Your task to perform on an android device: Search for pizza restaurants on Maps Image 0: 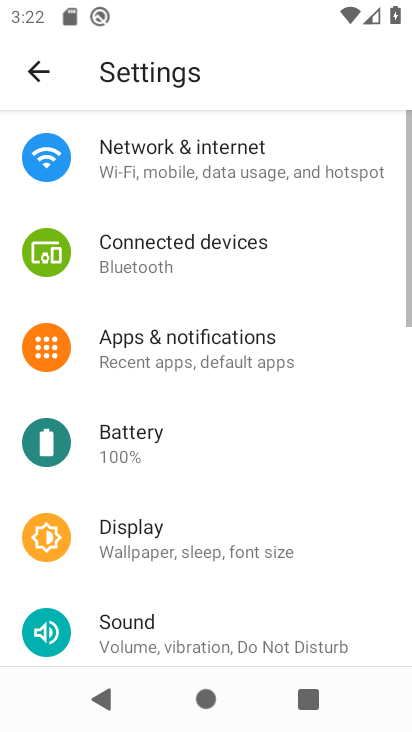
Step 0: press home button
Your task to perform on an android device: Search for pizza restaurants on Maps Image 1: 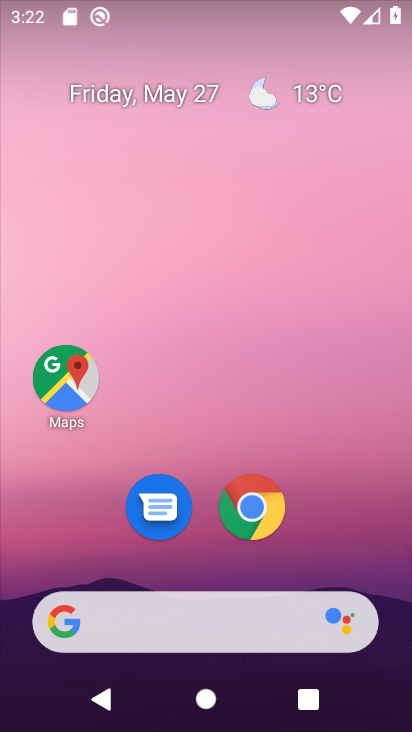
Step 1: click (55, 380)
Your task to perform on an android device: Search for pizza restaurants on Maps Image 2: 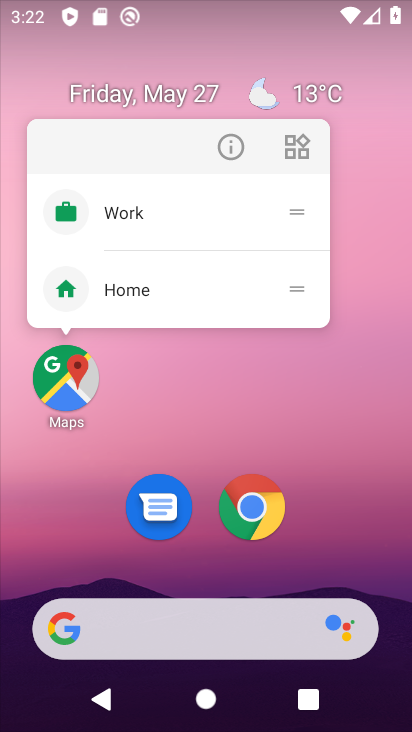
Step 2: click (89, 383)
Your task to perform on an android device: Search for pizza restaurants on Maps Image 3: 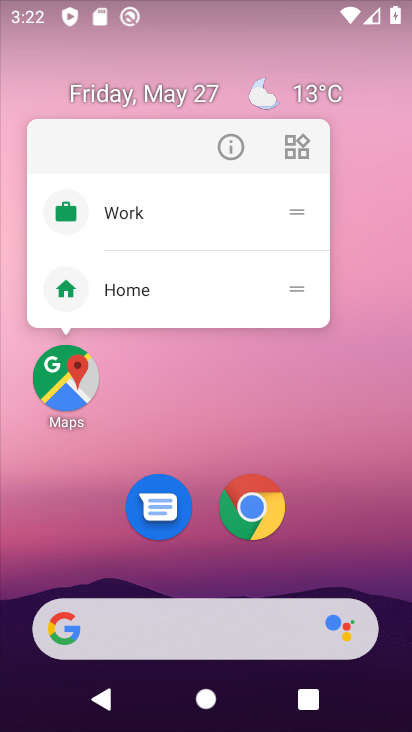
Step 3: click (89, 383)
Your task to perform on an android device: Search for pizza restaurants on Maps Image 4: 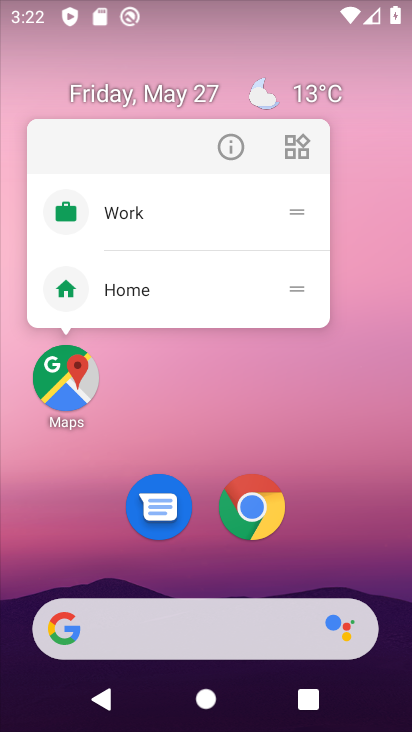
Step 4: click (78, 390)
Your task to perform on an android device: Search for pizza restaurants on Maps Image 5: 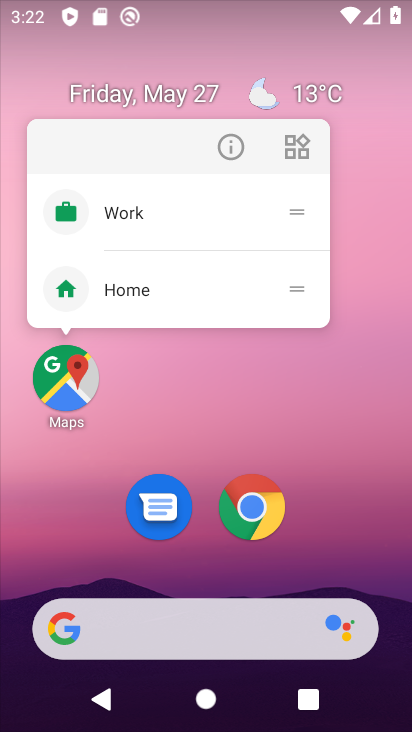
Step 5: click (73, 389)
Your task to perform on an android device: Search for pizza restaurants on Maps Image 6: 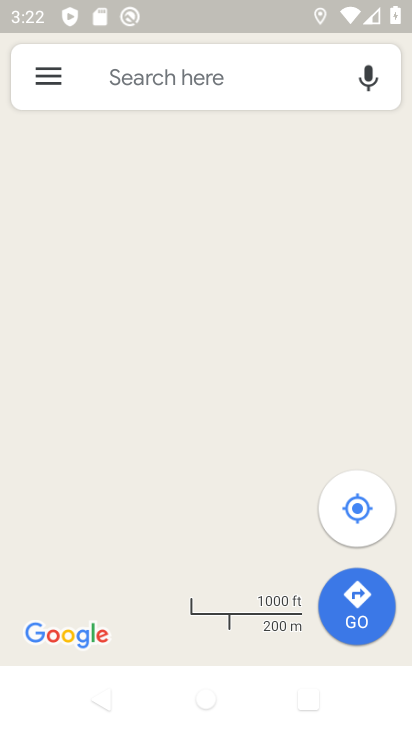
Step 6: click (228, 96)
Your task to perform on an android device: Search for pizza restaurants on Maps Image 7: 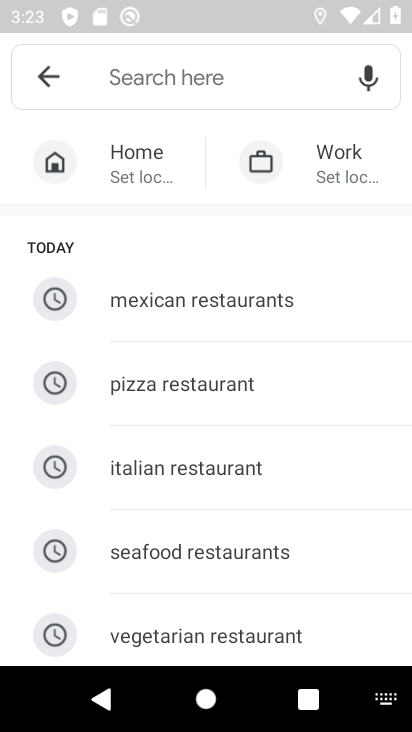
Step 7: type "Pizza restaurants"
Your task to perform on an android device: Search for pizza restaurants on Maps Image 8: 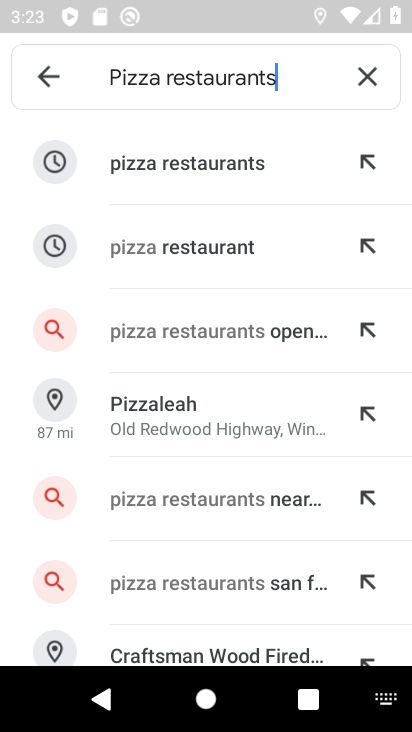
Step 8: click (230, 167)
Your task to perform on an android device: Search for pizza restaurants on Maps Image 9: 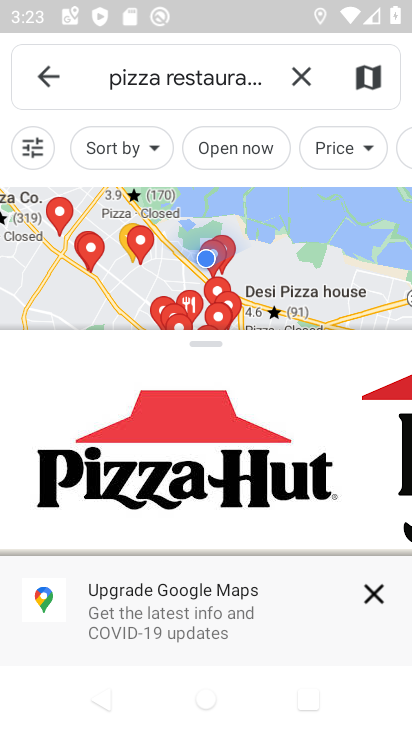
Step 9: task complete